Your task to perform on an android device: open chrome and create a bookmark for the current page Image 0: 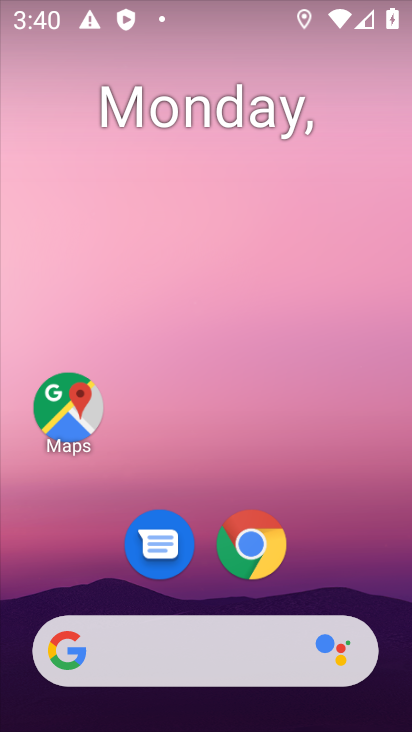
Step 0: drag from (255, 612) to (275, 161)
Your task to perform on an android device: open chrome and create a bookmark for the current page Image 1: 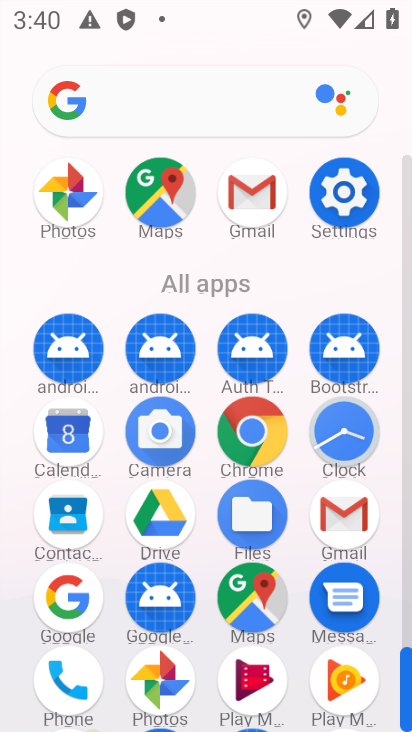
Step 1: click (249, 423)
Your task to perform on an android device: open chrome and create a bookmark for the current page Image 2: 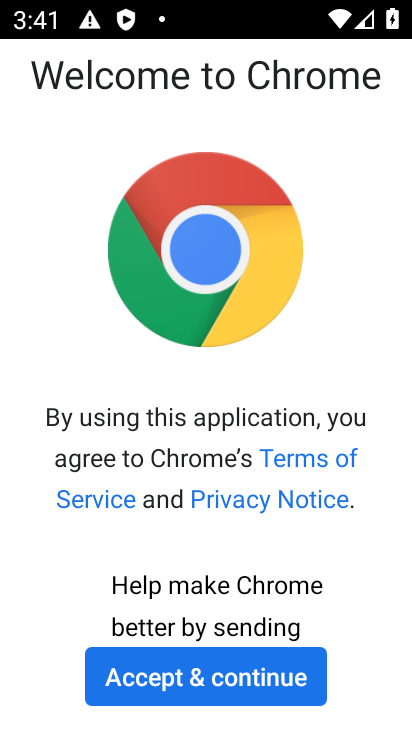
Step 2: click (220, 670)
Your task to perform on an android device: open chrome and create a bookmark for the current page Image 3: 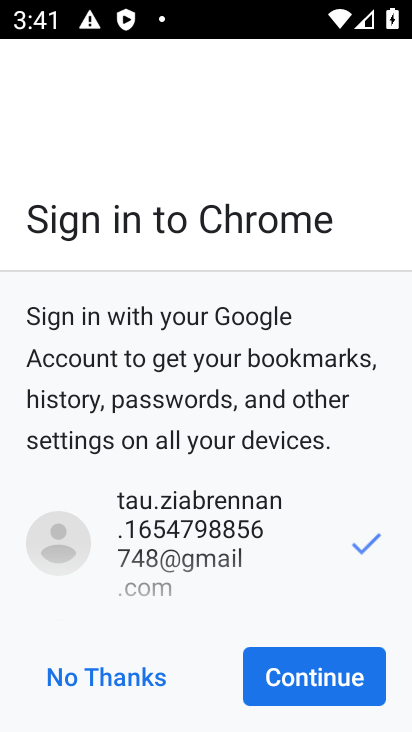
Step 3: click (302, 671)
Your task to perform on an android device: open chrome and create a bookmark for the current page Image 4: 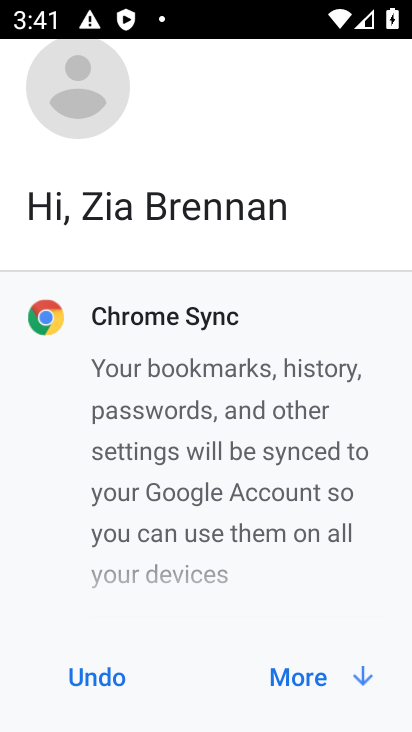
Step 4: click (284, 686)
Your task to perform on an android device: open chrome and create a bookmark for the current page Image 5: 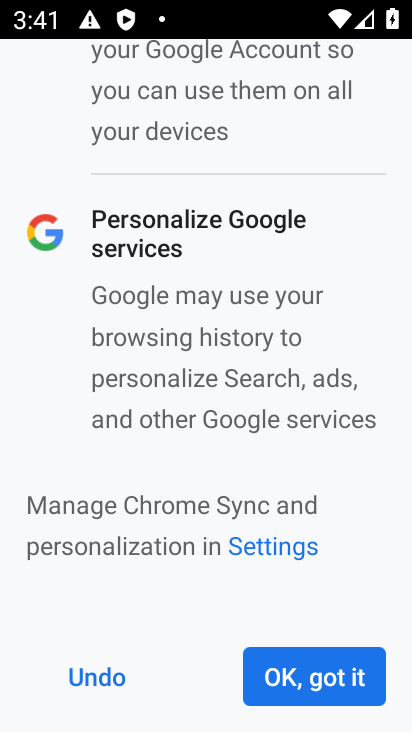
Step 5: click (286, 682)
Your task to perform on an android device: open chrome and create a bookmark for the current page Image 6: 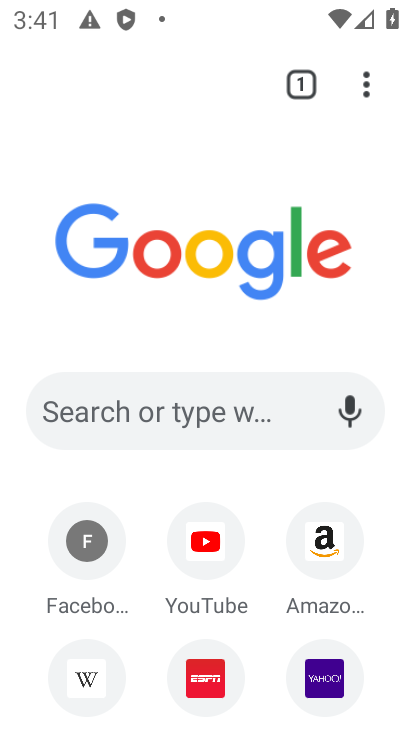
Step 6: click (362, 100)
Your task to perform on an android device: open chrome and create a bookmark for the current page Image 7: 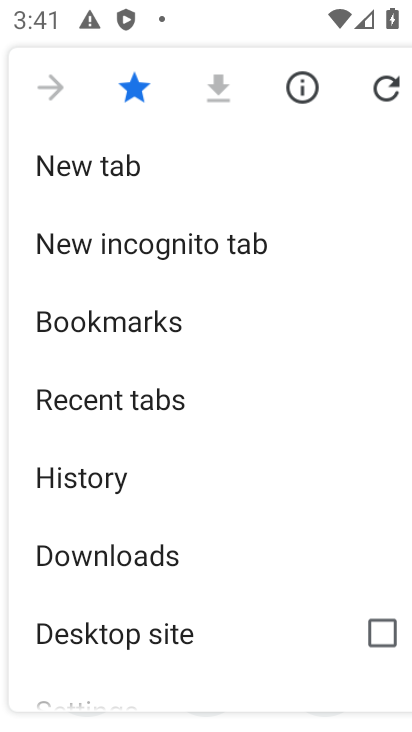
Step 7: task complete